Your task to perform on an android device: Open display settings Image 0: 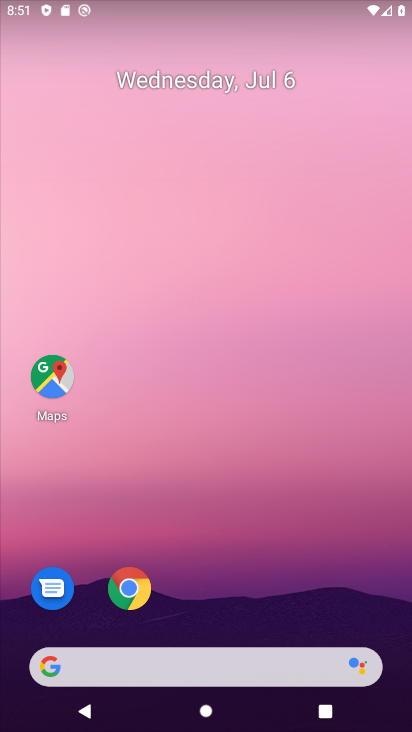
Step 0: drag from (210, 666) to (333, 17)
Your task to perform on an android device: Open display settings Image 1: 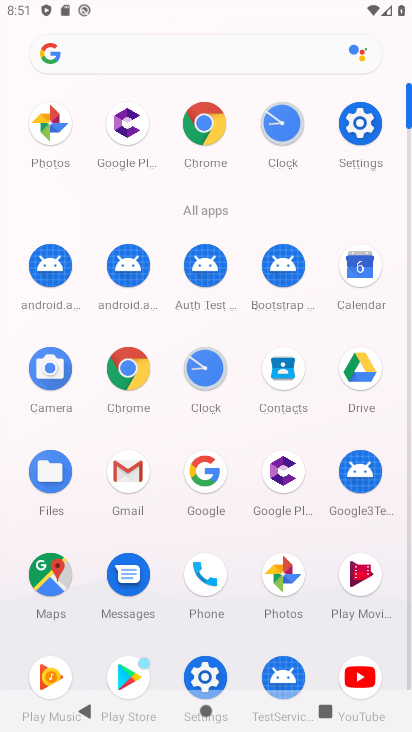
Step 1: click (356, 130)
Your task to perform on an android device: Open display settings Image 2: 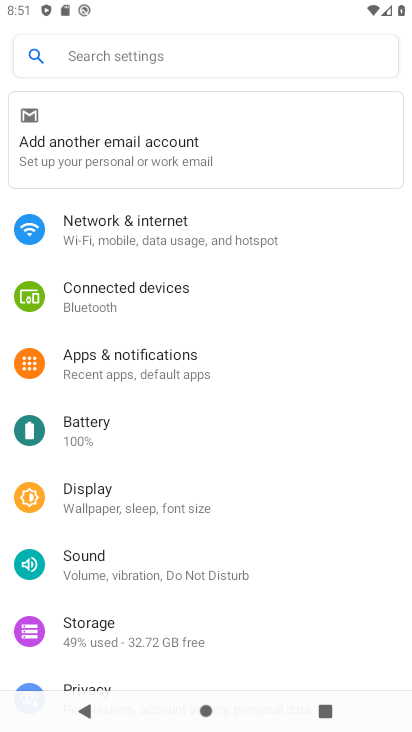
Step 2: click (127, 494)
Your task to perform on an android device: Open display settings Image 3: 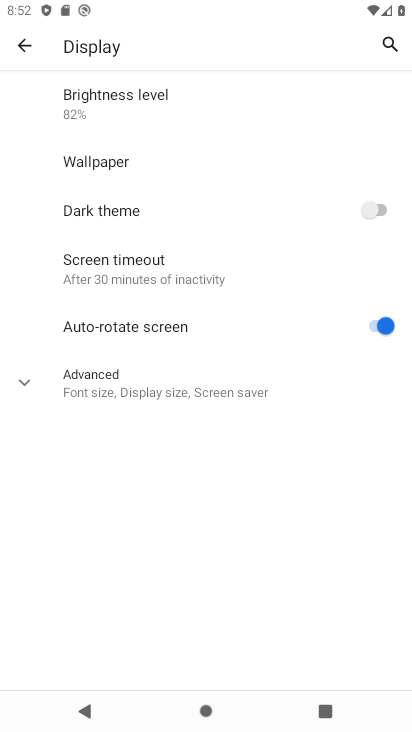
Step 3: task complete